Your task to perform on an android device: Add "usb-c" to the cart on walmart, then select checkout. Image 0: 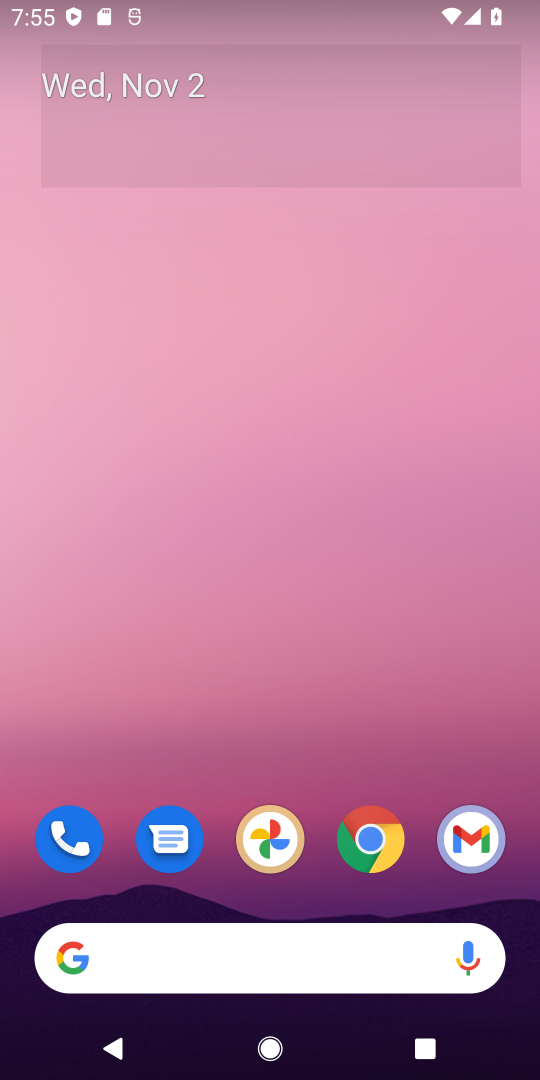
Step 0: click (372, 839)
Your task to perform on an android device: Add "usb-c" to the cart on walmart, then select checkout. Image 1: 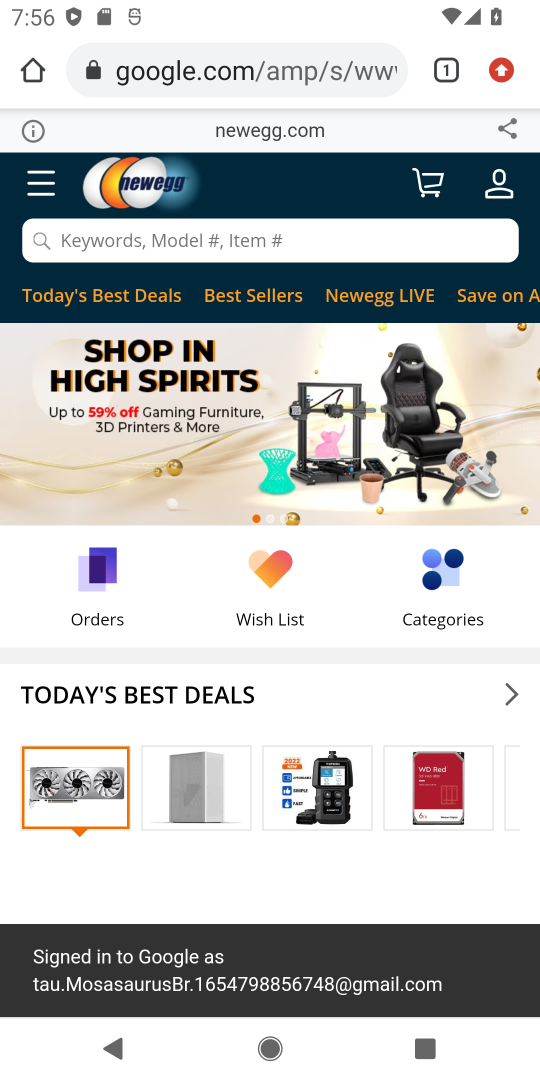
Step 1: click (310, 75)
Your task to perform on an android device: Add "usb-c" to the cart on walmart, then select checkout. Image 2: 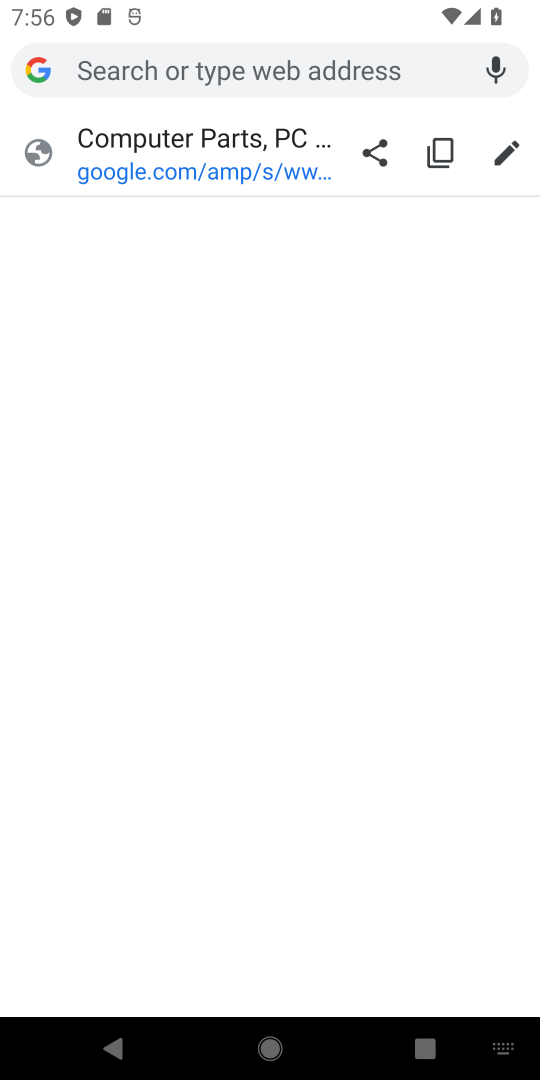
Step 2: type "walmart"
Your task to perform on an android device: Add "usb-c" to the cart on walmart, then select checkout. Image 3: 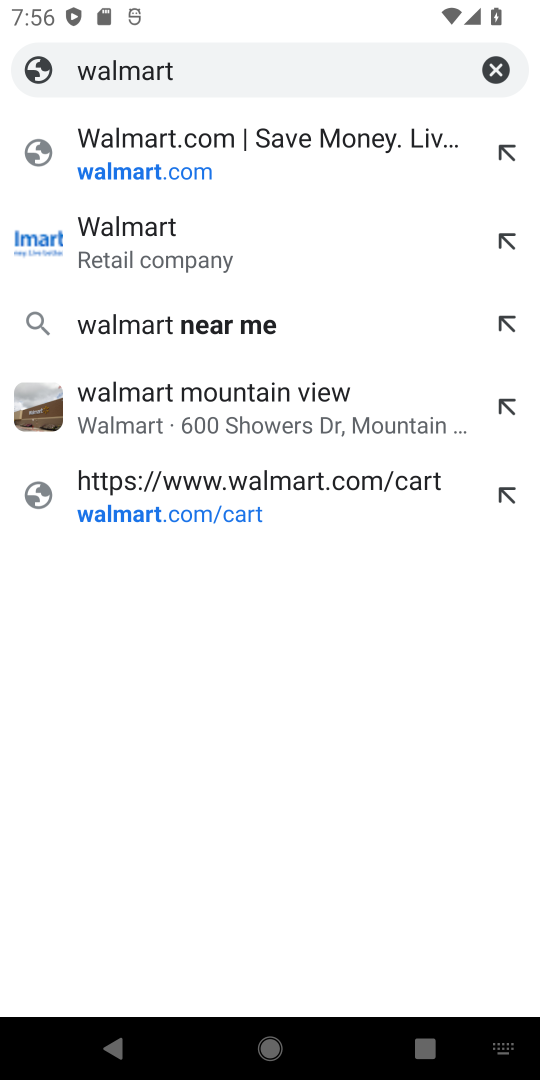
Step 3: click (191, 229)
Your task to perform on an android device: Add "usb-c" to the cart on walmart, then select checkout. Image 4: 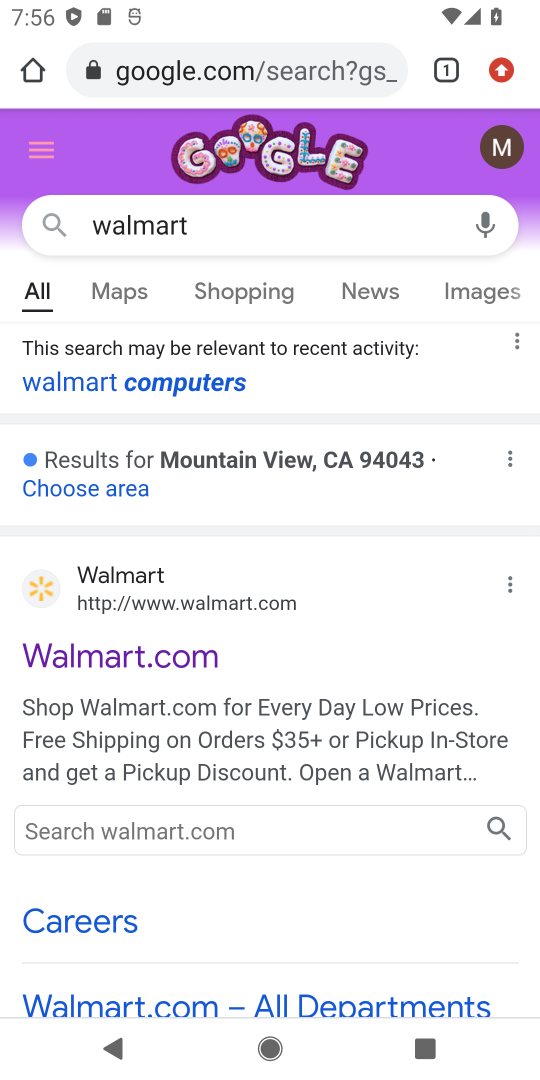
Step 4: click (239, 638)
Your task to perform on an android device: Add "usb-c" to the cart on walmart, then select checkout. Image 5: 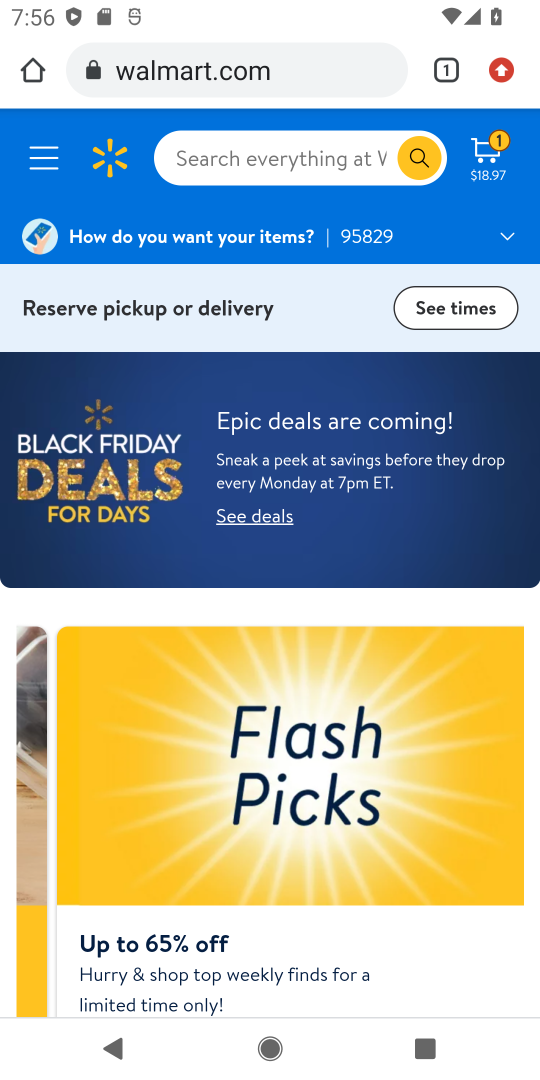
Step 5: click (277, 168)
Your task to perform on an android device: Add "usb-c" to the cart on walmart, then select checkout. Image 6: 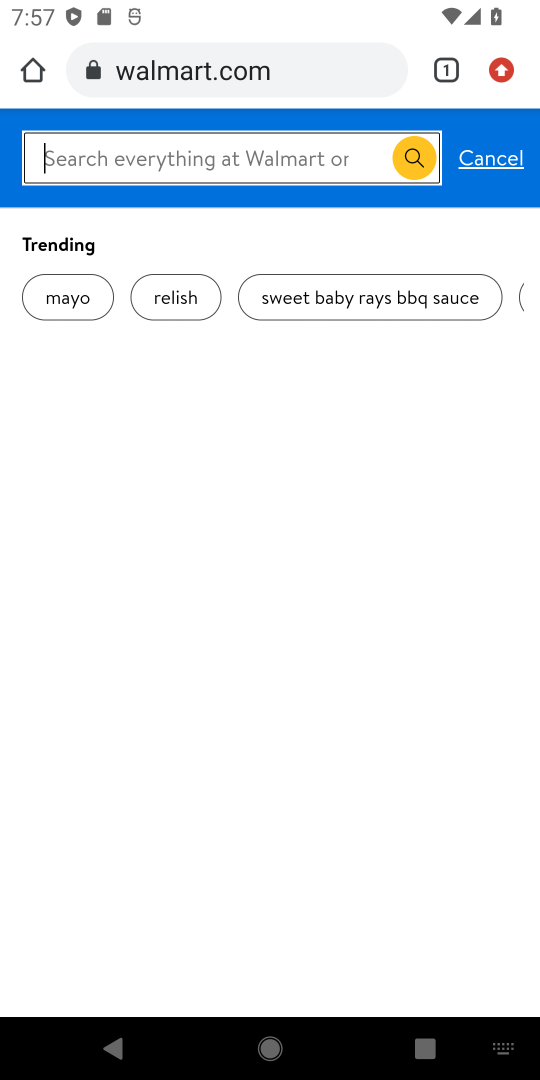
Step 6: type "usb-c"
Your task to perform on an android device: Add "usb-c" to the cart on walmart, then select checkout. Image 7: 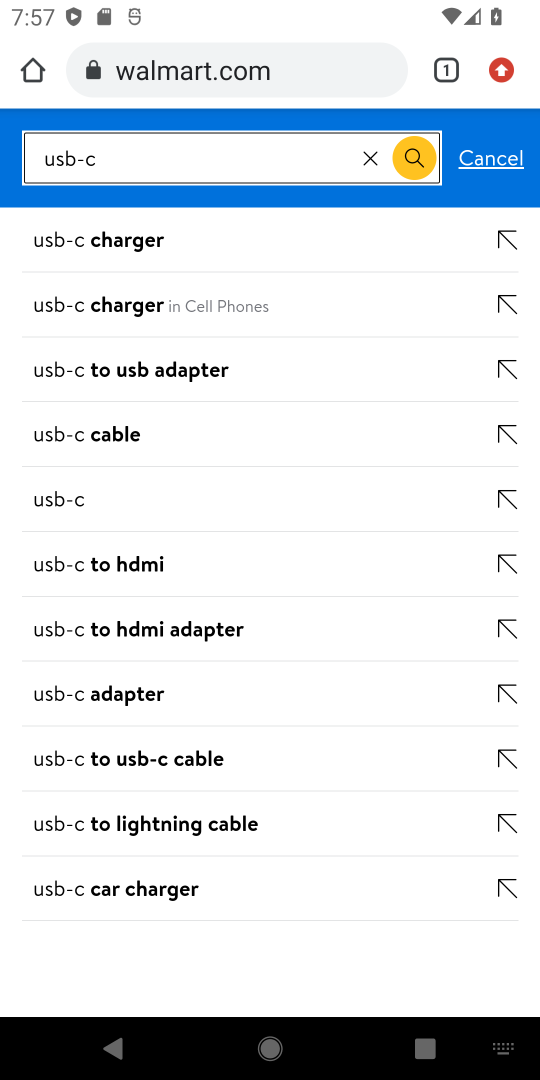
Step 7: click (419, 161)
Your task to perform on an android device: Add "usb-c" to the cart on walmart, then select checkout. Image 8: 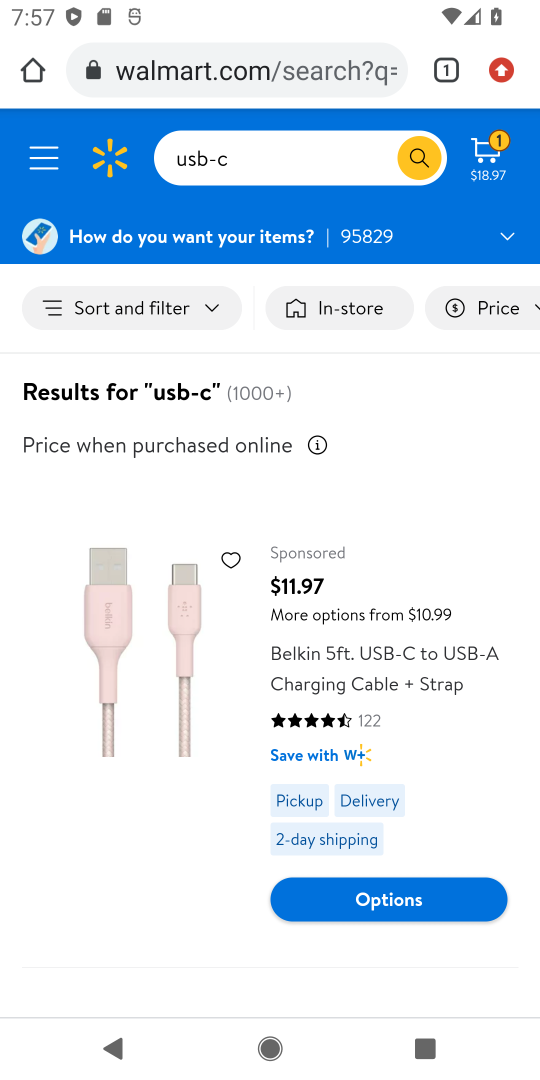
Step 8: drag from (418, 768) to (434, 510)
Your task to perform on an android device: Add "usb-c" to the cart on walmart, then select checkout. Image 9: 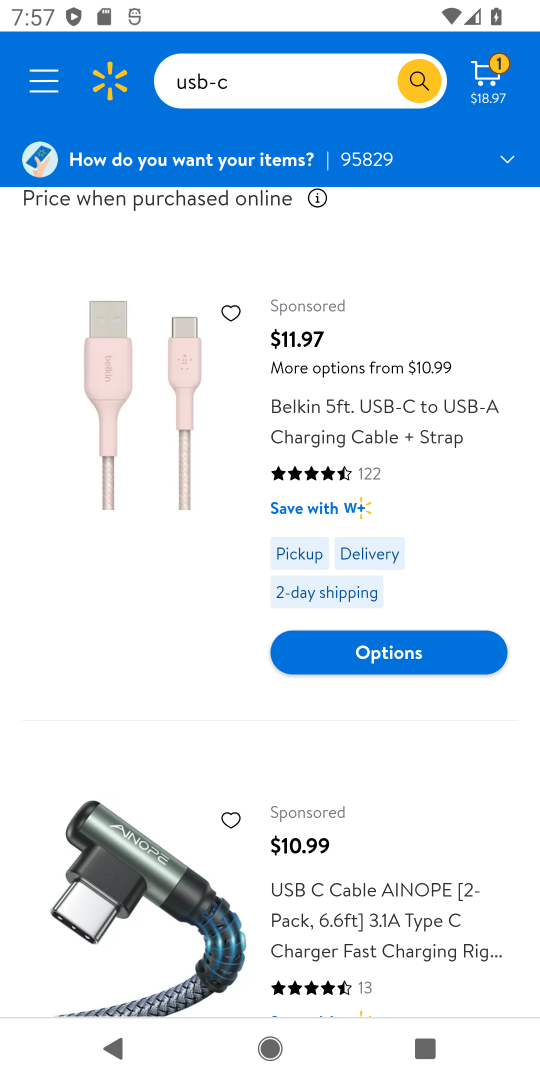
Step 9: drag from (403, 847) to (459, 456)
Your task to perform on an android device: Add "usb-c" to the cart on walmart, then select checkout. Image 10: 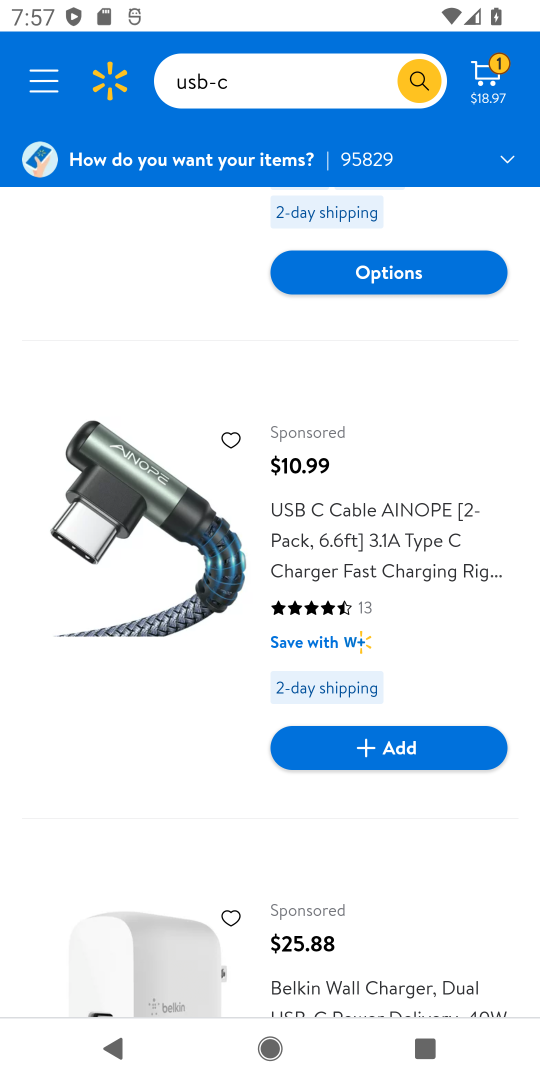
Step 10: drag from (392, 922) to (419, 532)
Your task to perform on an android device: Add "usb-c" to the cart on walmart, then select checkout. Image 11: 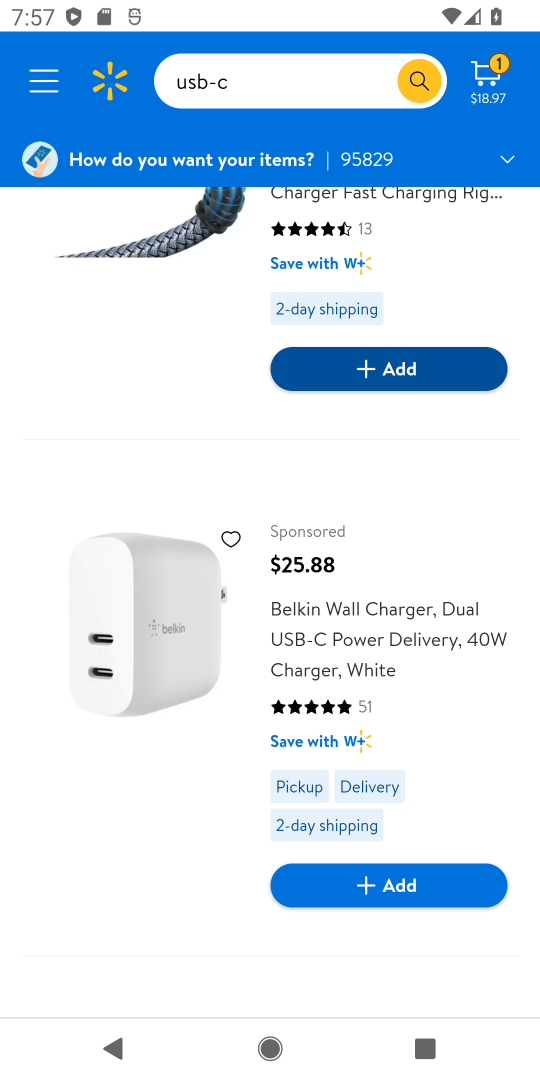
Step 11: drag from (429, 507) to (390, 851)
Your task to perform on an android device: Add "usb-c" to the cart on walmart, then select checkout. Image 12: 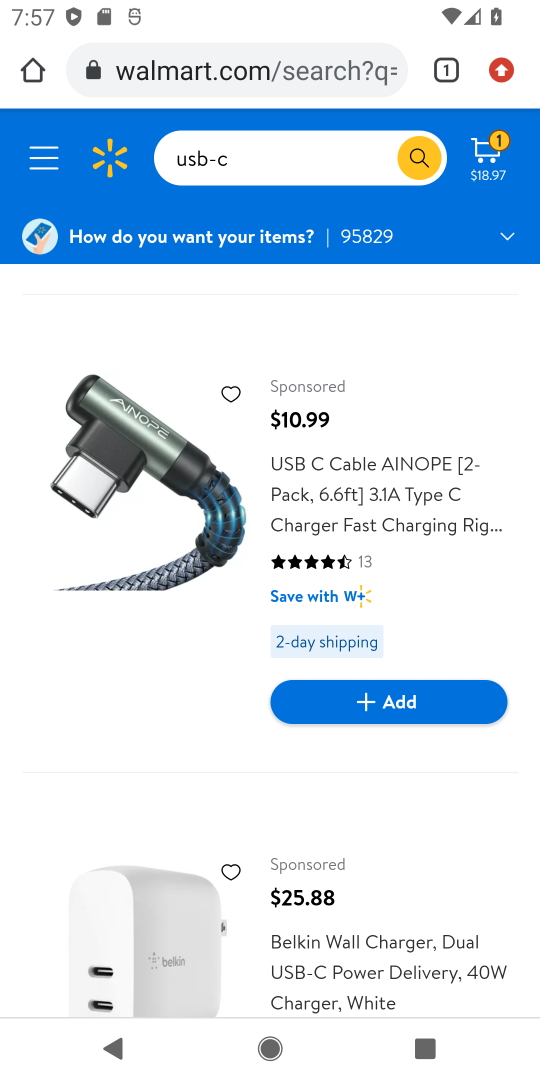
Step 12: click (383, 481)
Your task to perform on an android device: Add "usb-c" to the cart on walmart, then select checkout. Image 13: 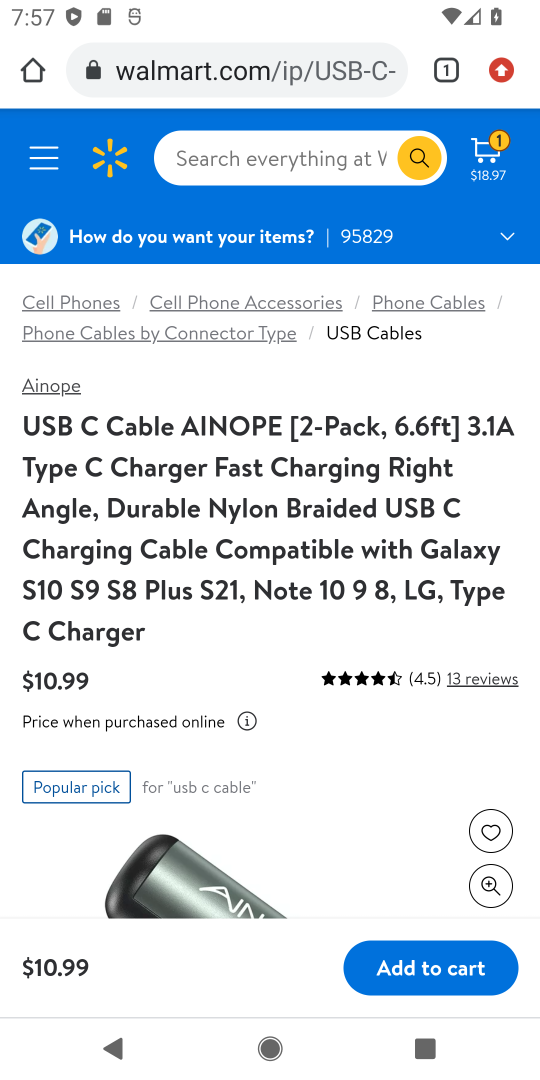
Step 13: click (415, 969)
Your task to perform on an android device: Add "usb-c" to the cart on walmart, then select checkout. Image 14: 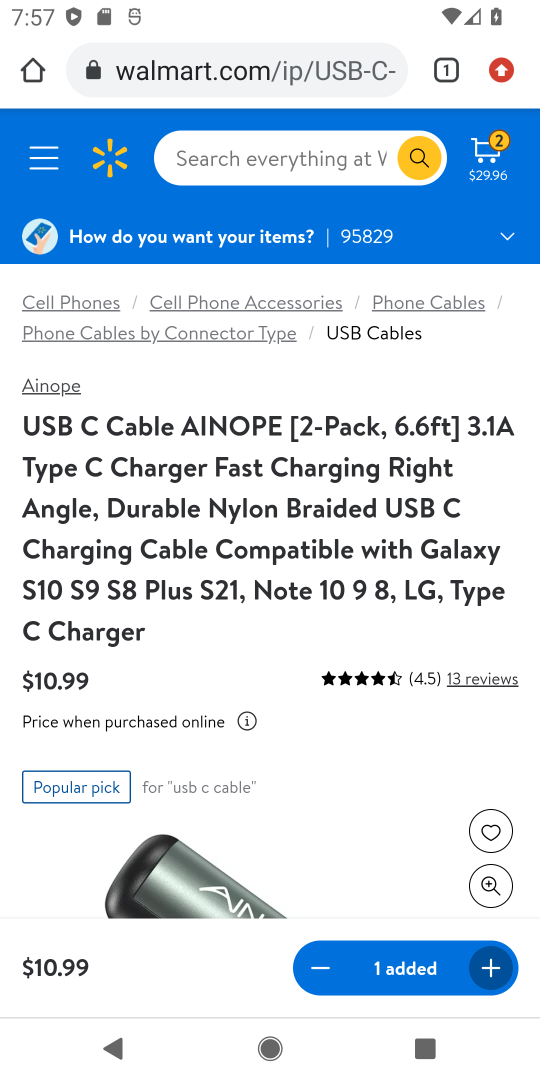
Step 14: click (494, 150)
Your task to perform on an android device: Add "usb-c" to the cart on walmart, then select checkout. Image 15: 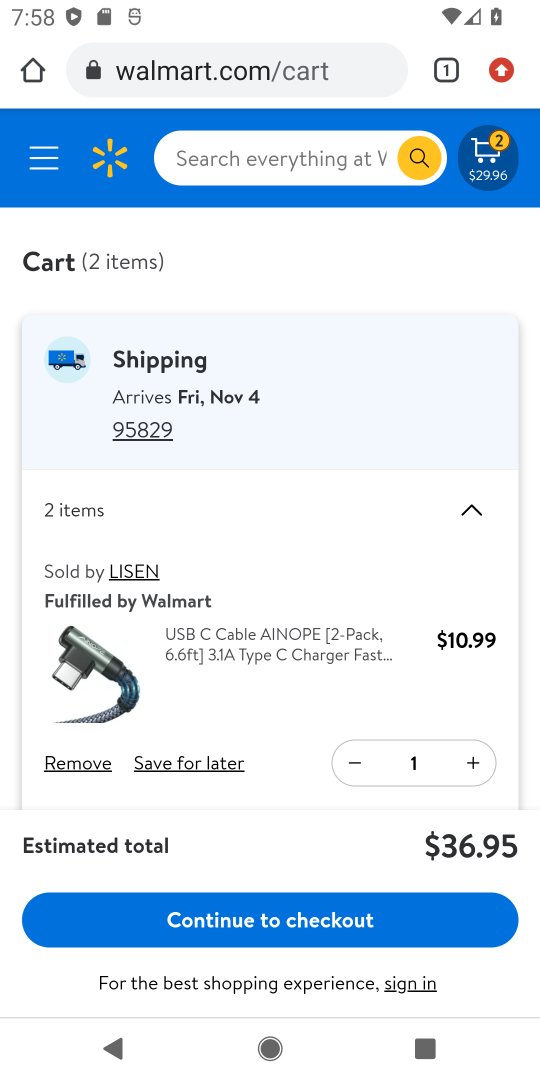
Step 15: click (245, 927)
Your task to perform on an android device: Add "usb-c" to the cart on walmart, then select checkout. Image 16: 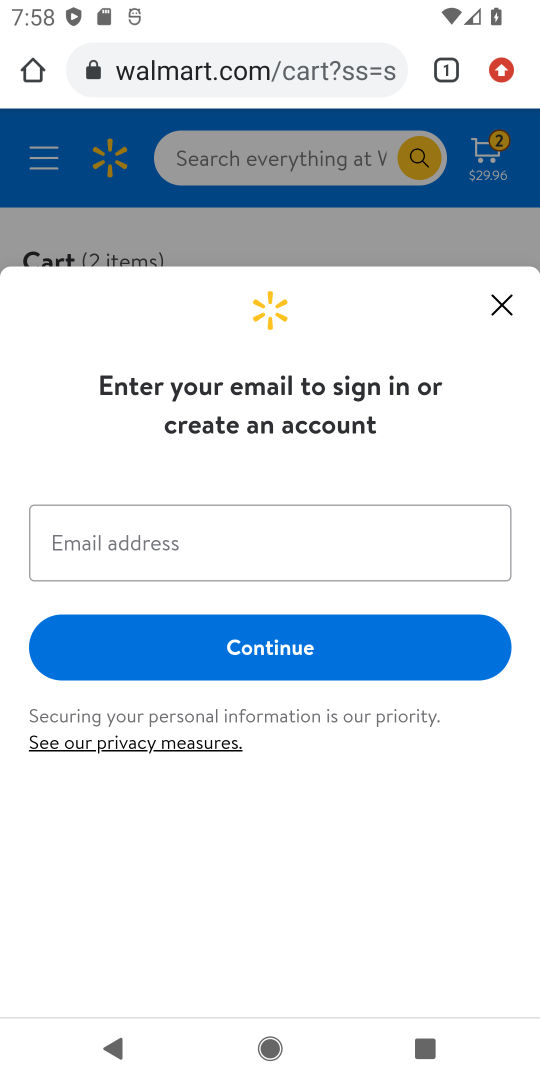
Step 16: task complete